Your task to perform on an android device: Search for sushi restaurants on Maps Image 0: 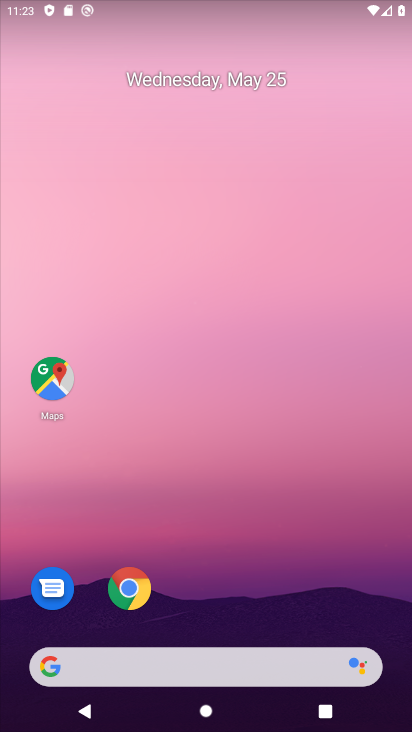
Step 0: drag from (244, 577) to (192, 25)
Your task to perform on an android device: Search for sushi restaurants on Maps Image 1: 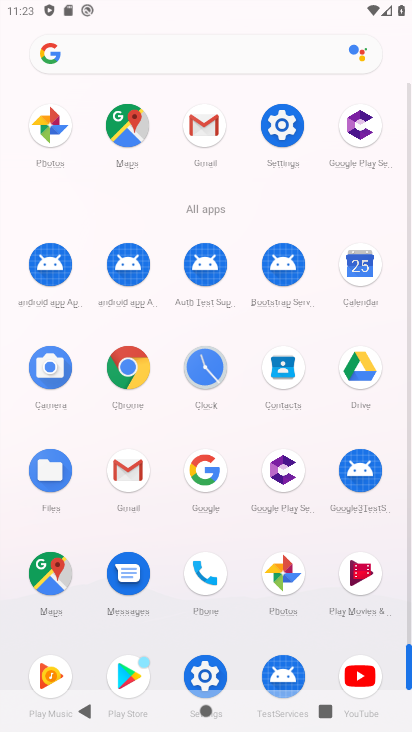
Step 1: drag from (11, 558) to (11, 200)
Your task to perform on an android device: Search for sushi restaurants on Maps Image 2: 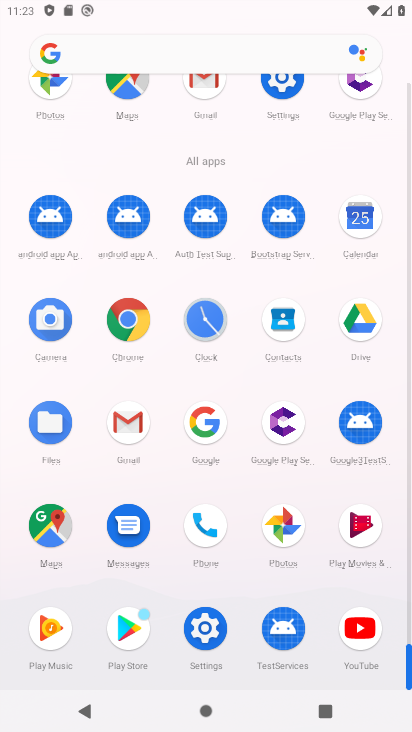
Step 2: click (44, 519)
Your task to perform on an android device: Search for sushi restaurants on Maps Image 3: 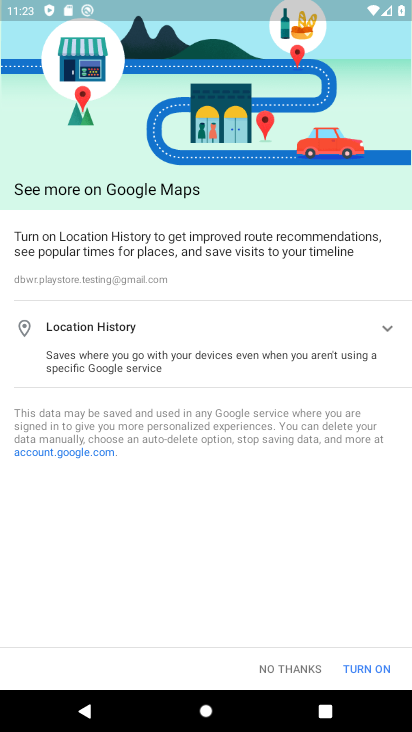
Step 3: click (361, 665)
Your task to perform on an android device: Search for sushi restaurants on Maps Image 4: 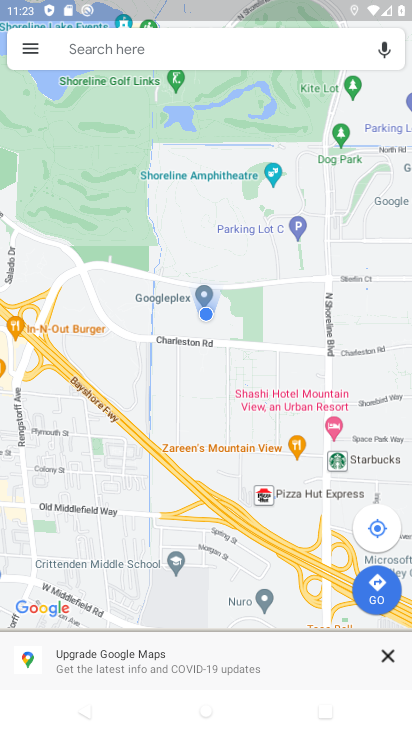
Step 4: click (214, 39)
Your task to perform on an android device: Search for sushi restaurants on Maps Image 5: 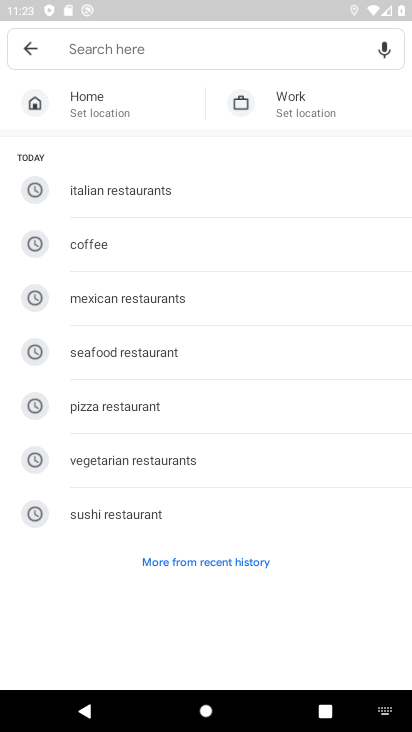
Step 5: click (134, 367)
Your task to perform on an android device: Search for sushi restaurants on Maps Image 6: 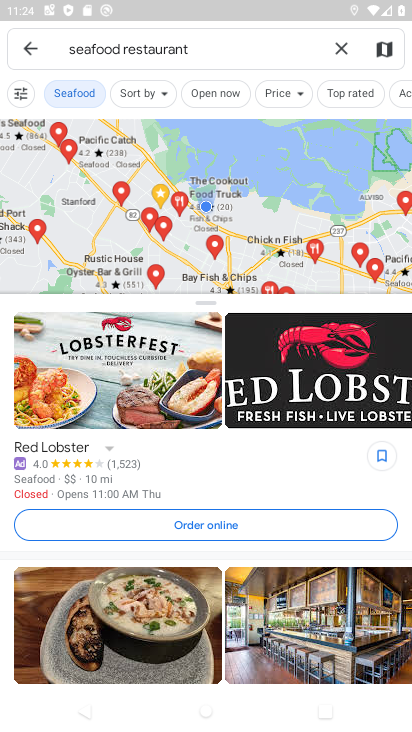
Step 6: click (340, 43)
Your task to perform on an android device: Search for sushi restaurants on Maps Image 7: 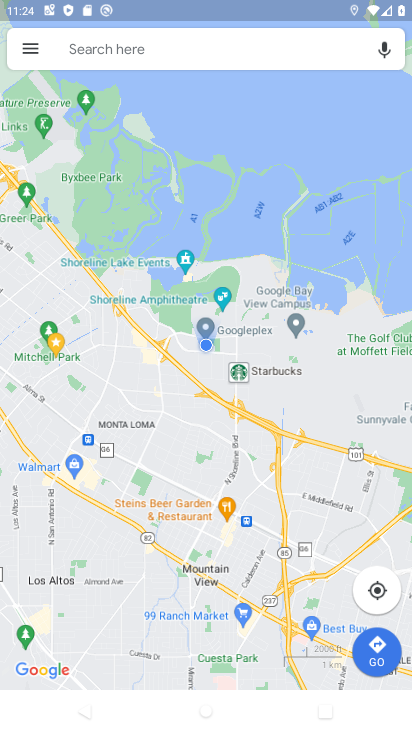
Step 7: click (150, 38)
Your task to perform on an android device: Search for sushi restaurants on Maps Image 8: 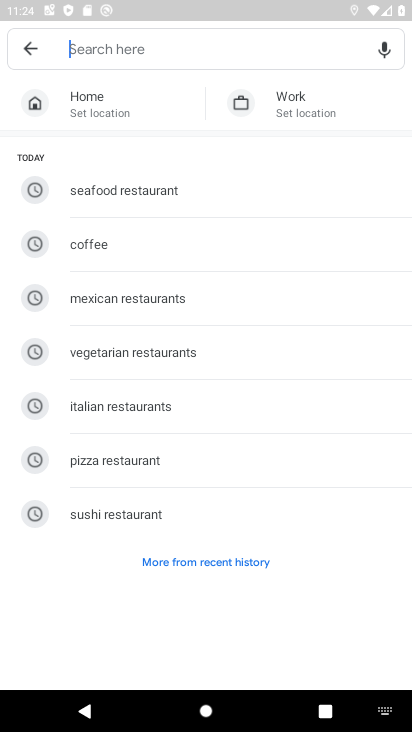
Step 8: click (139, 508)
Your task to perform on an android device: Search for sushi restaurants on Maps Image 9: 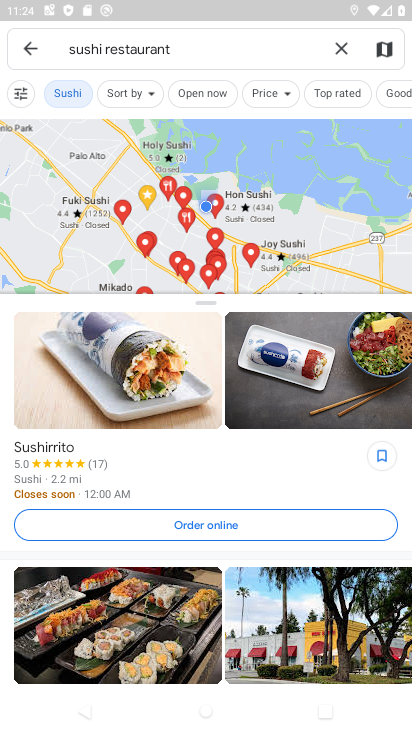
Step 9: task complete